Your task to perform on an android device: check storage Image 0: 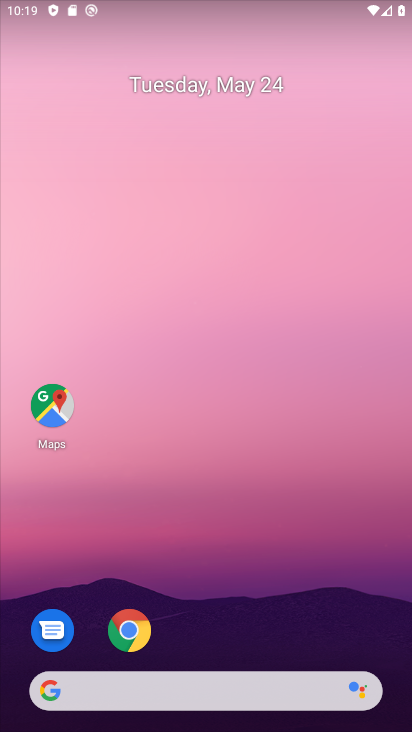
Step 0: drag from (225, 651) to (32, 465)
Your task to perform on an android device: check storage Image 1: 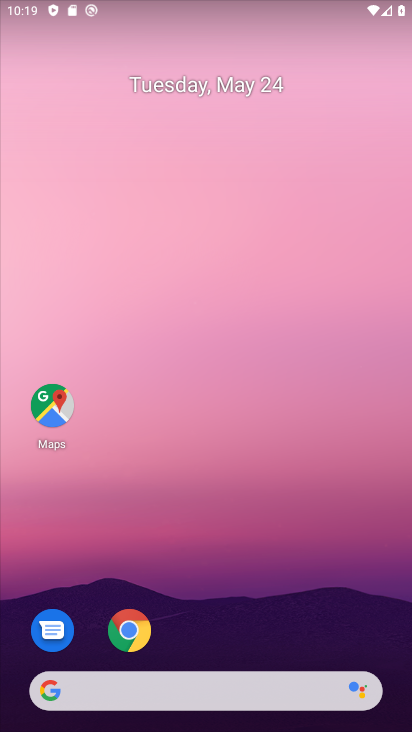
Step 1: drag from (222, 646) to (240, 50)
Your task to perform on an android device: check storage Image 2: 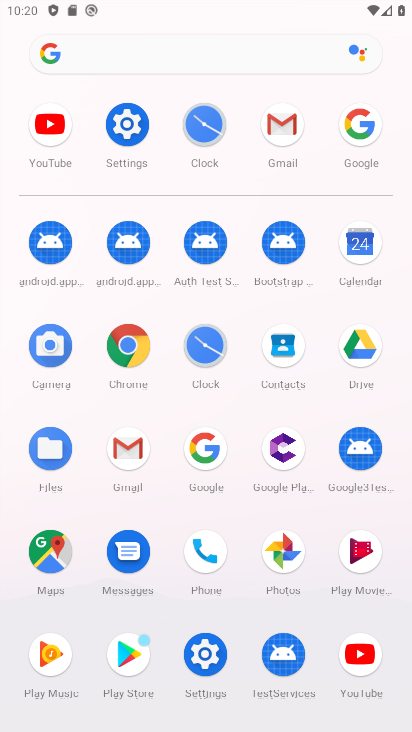
Step 2: click (125, 118)
Your task to perform on an android device: check storage Image 3: 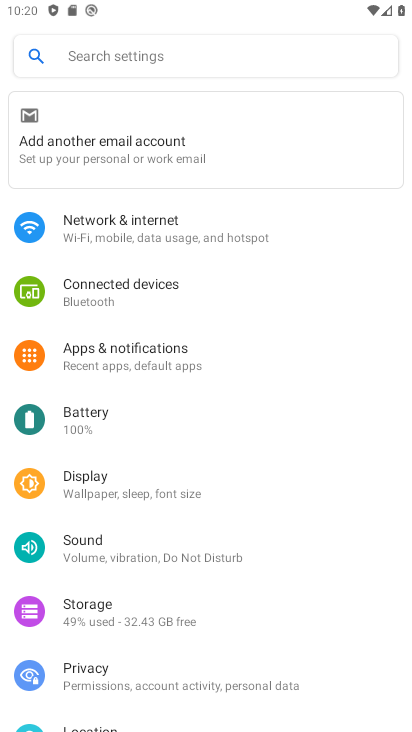
Step 3: click (129, 603)
Your task to perform on an android device: check storage Image 4: 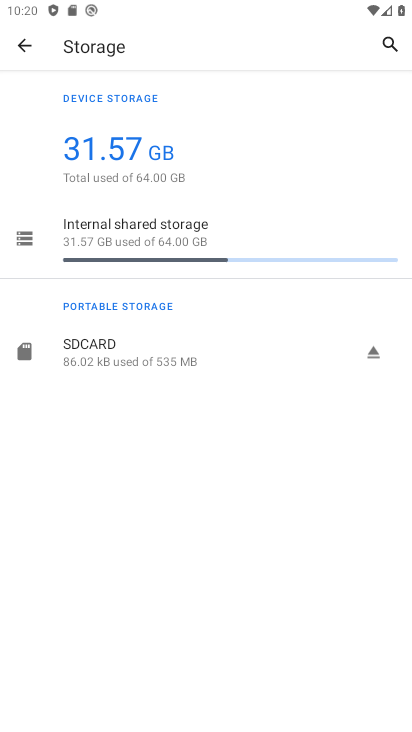
Step 4: task complete